Your task to perform on an android device: empty trash in the gmail app Image 0: 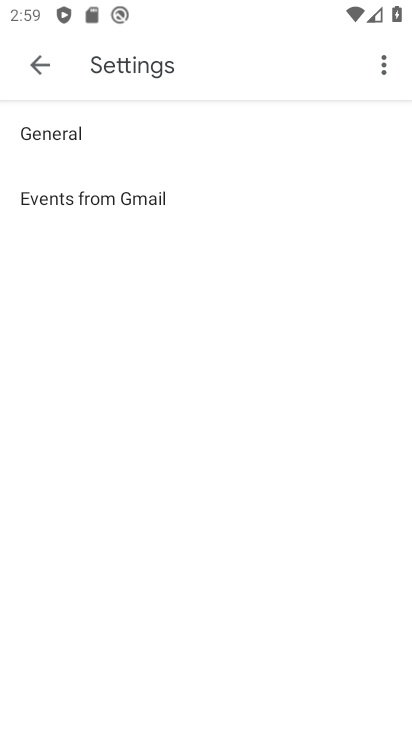
Step 0: press home button
Your task to perform on an android device: empty trash in the gmail app Image 1: 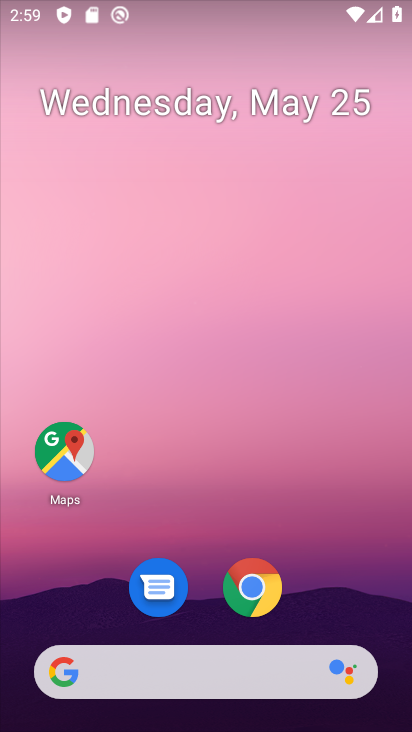
Step 1: drag from (96, 609) to (204, 122)
Your task to perform on an android device: empty trash in the gmail app Image 2: 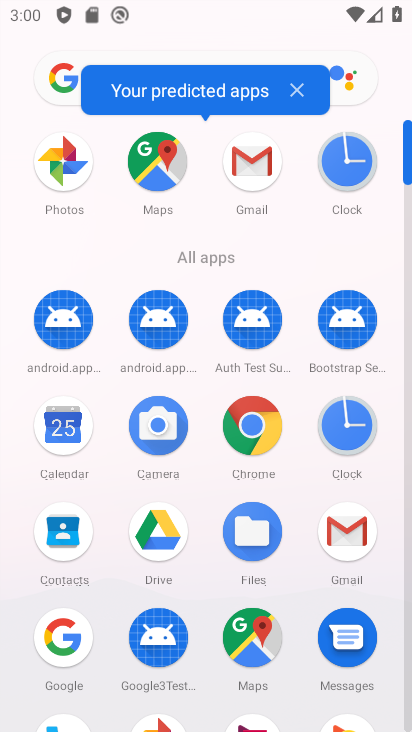
Step 2: click (337, 531)
Your task to perform on an android device: empty trash in the gmail app Image 3: 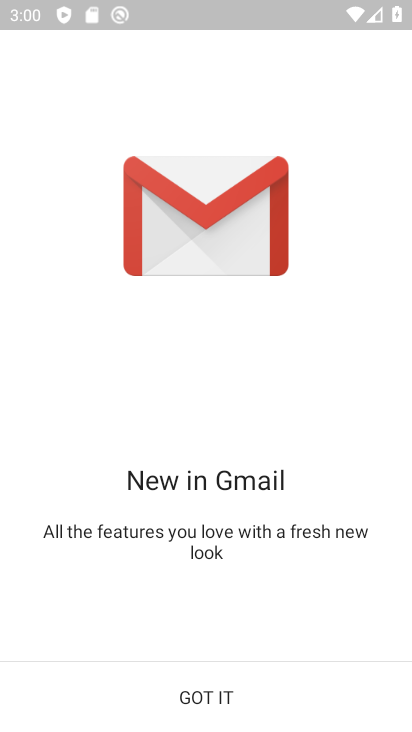
Step 3: click (241, 698)
Your task to perform on an android device: empty trash in the gmail app Image 4: 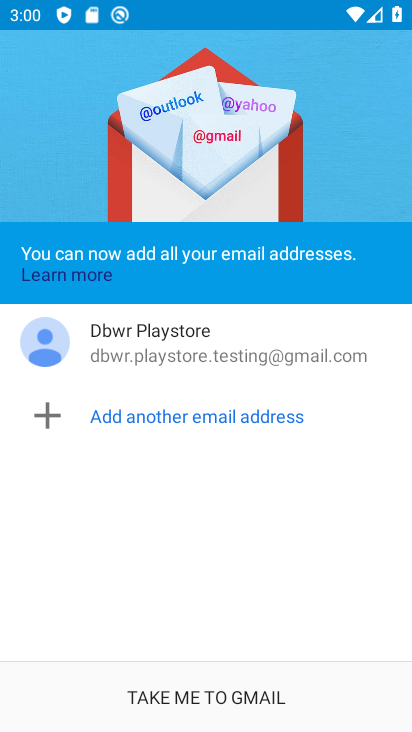
Step 4: click (240, 699)
Your task to perform on an android device: empty trash in the gmail app Image 5: 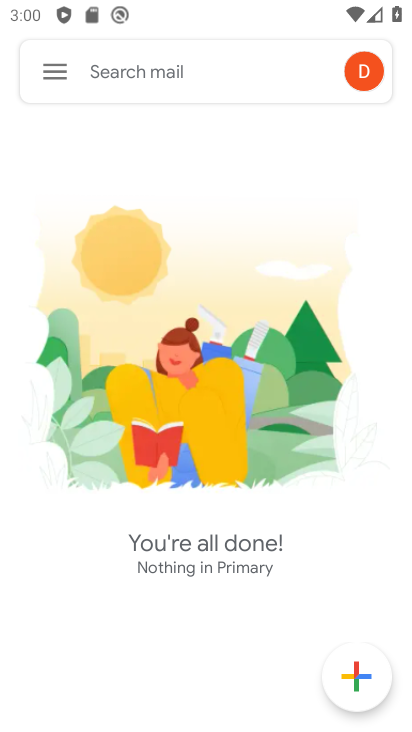
Step 5: click (66, 75)
Your task to perform on an android device: empty trash in the gmail app Image 6: 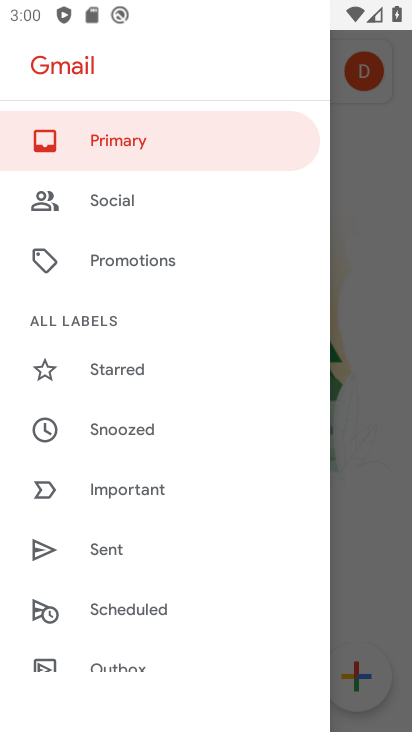
Step 6: drag from (107, 627) to (163, 351)
Your task to perform on an android device: empty trash in the gmail app Image 7: 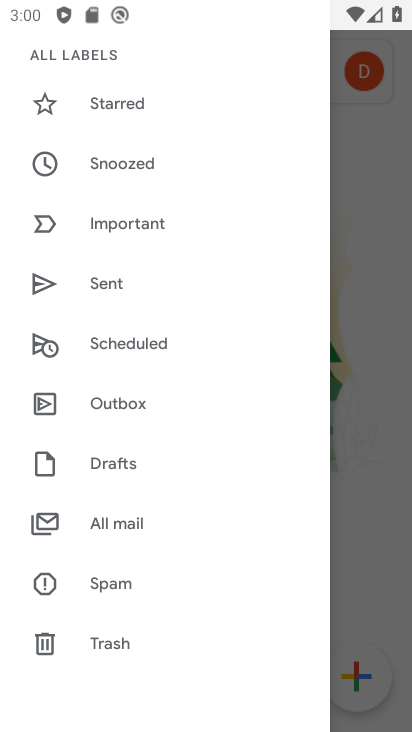
Step 7: drag from (161, 620) to (187, 477)
Your task to perform on an android device: empty trash in the gmail app Image 8: 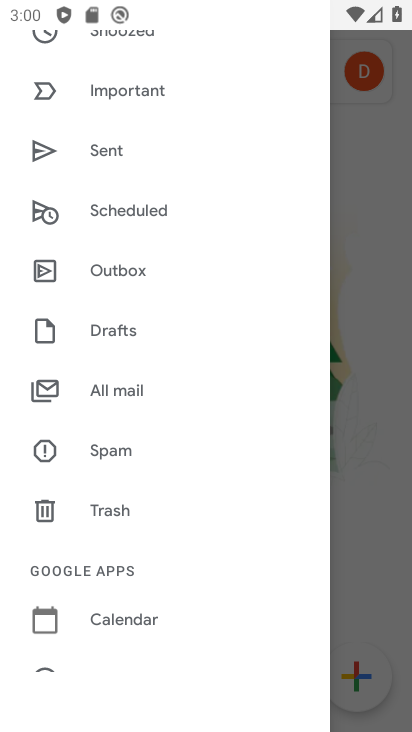
Step 8: click (115, 516)
Your task to perform on an android device: empty trash in the gmail app Image 9: 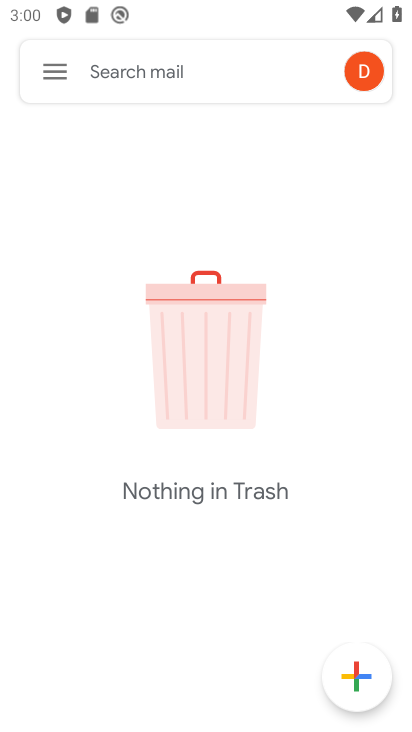
Step 9: task complete